Your task to perform on an android device: install app "Google Sheets" Image 0: 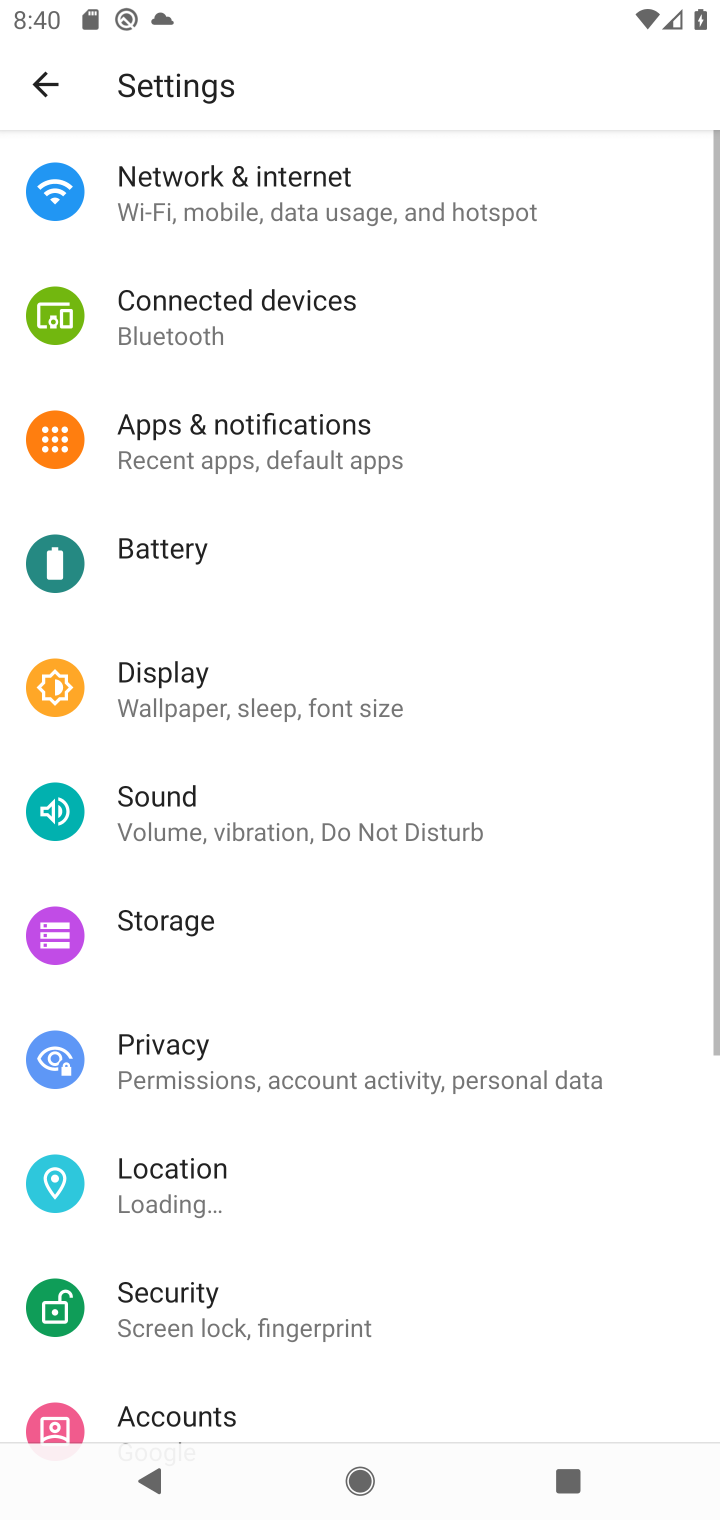
Step 0: press home button
Your task to perform on an android device: install app "Google Sheets" Image 1: 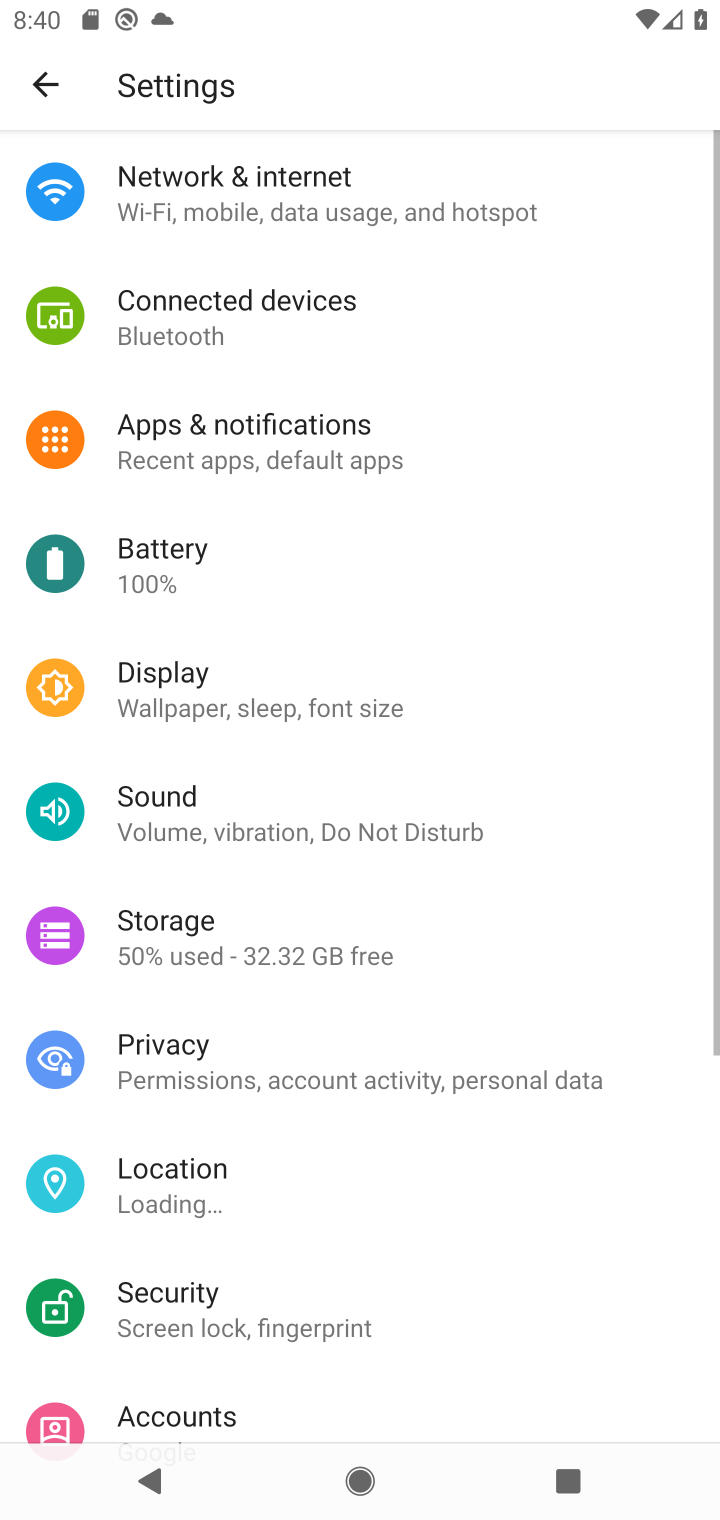
Step 1: drag from (310, 1058) to (310, 101)
Your task to perform on an android device: install app "Google Sheets" Image 2: 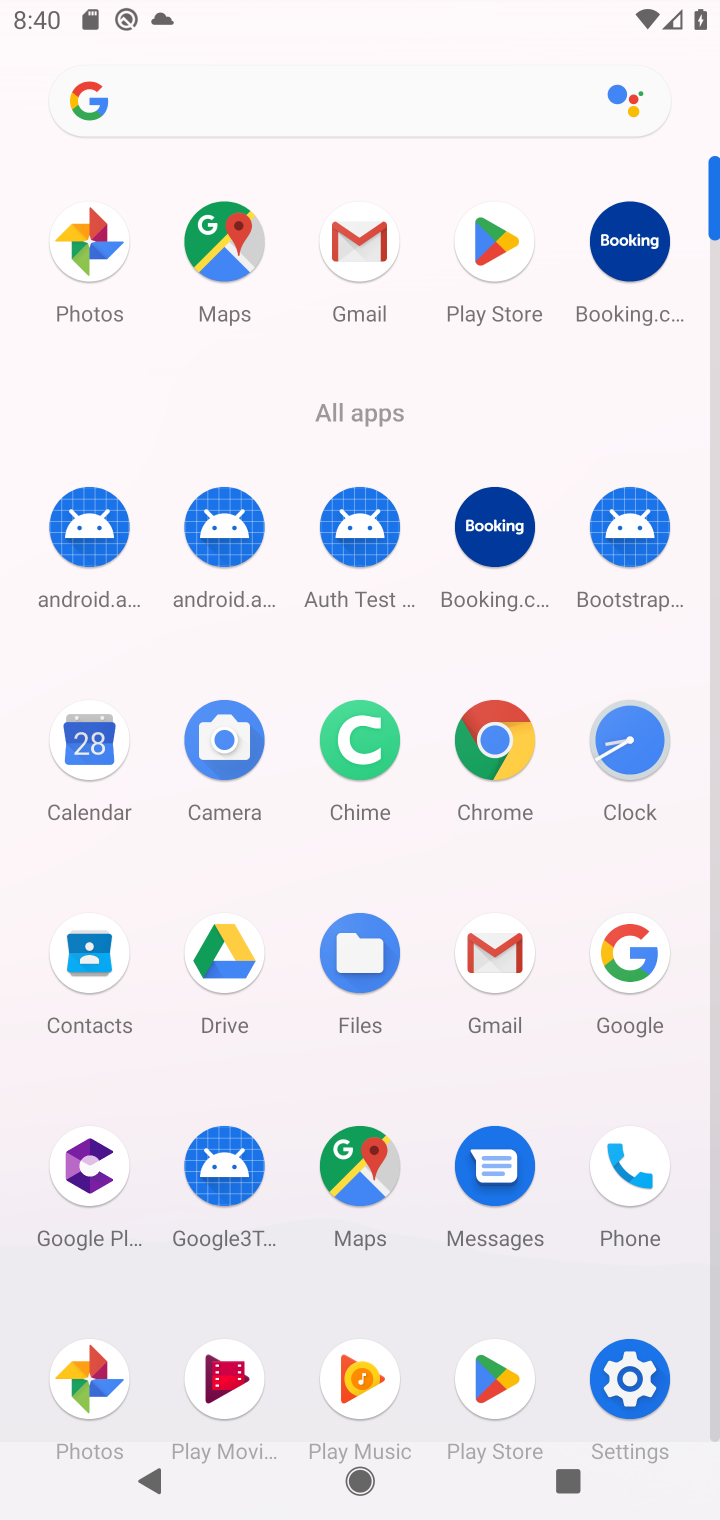
Step 2: drag from (483, 239) to (336, 1215)
Your task to perform on an android device: install app "Google Sheets" Image 3: 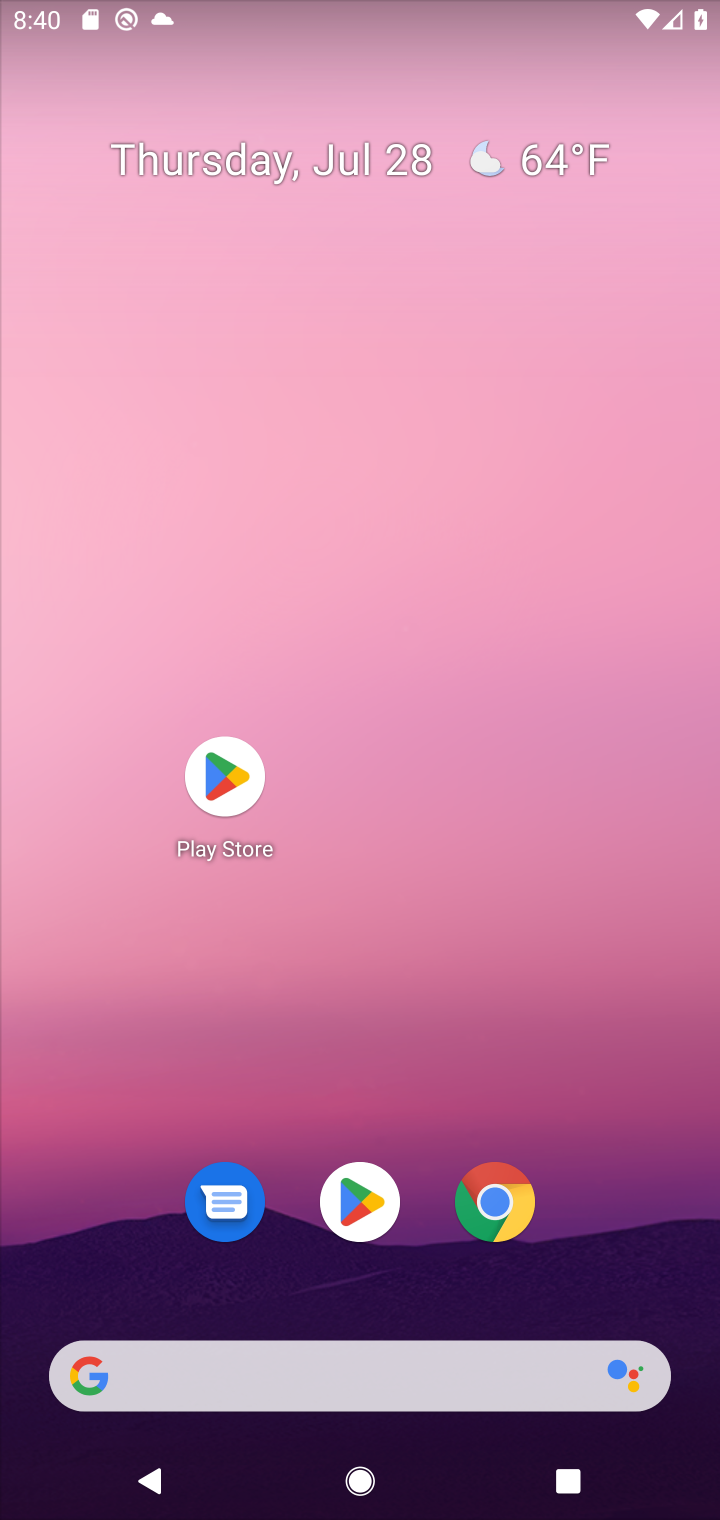
Step 3: click (354, 1202)
Your task to perform on an android device: install app "Google Sheets" Image 4: 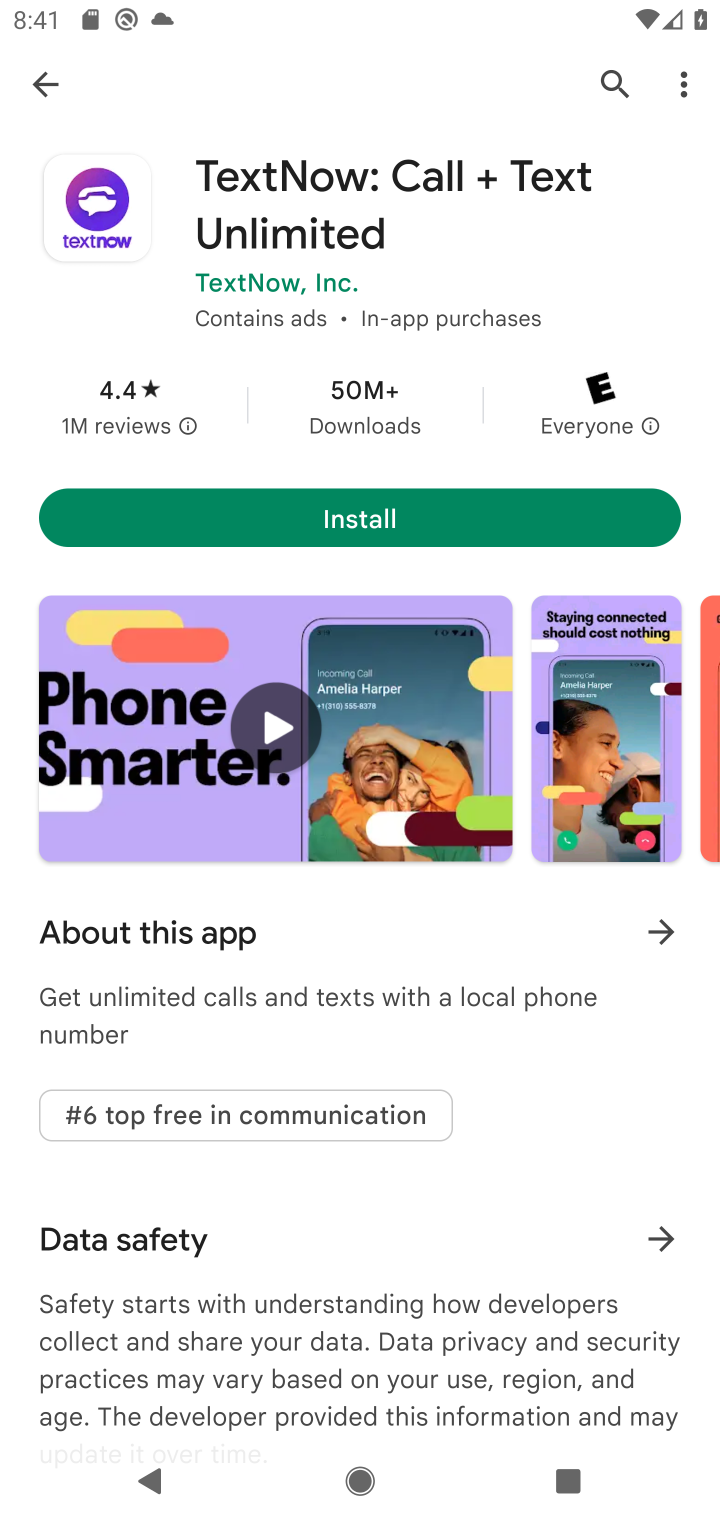
Step 4: click (49, 83)
Your task to perform on an android device: install app "Google Sheets" Image 5: 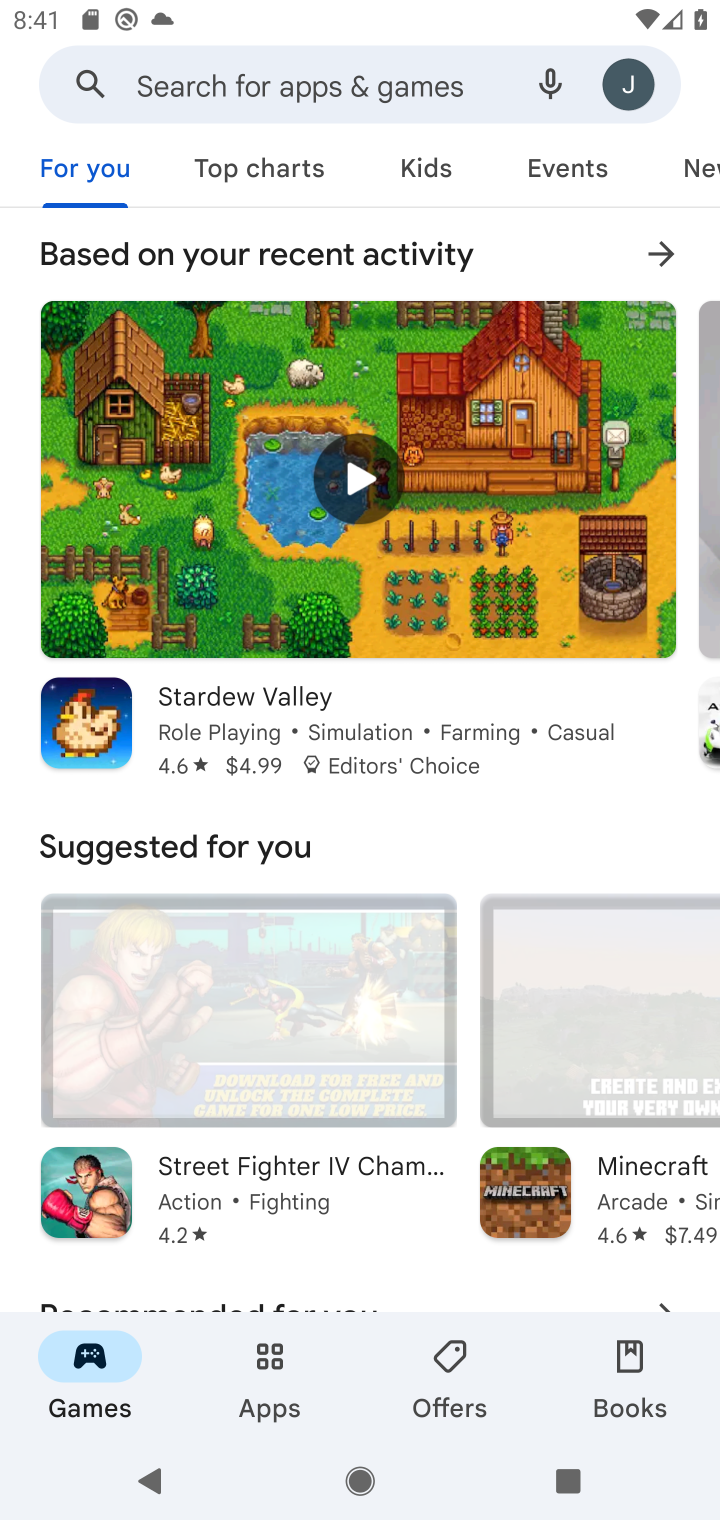
Step 5: click (386, 72)
Your task to perform on an android device: install app "Google Sheets" Image 6: 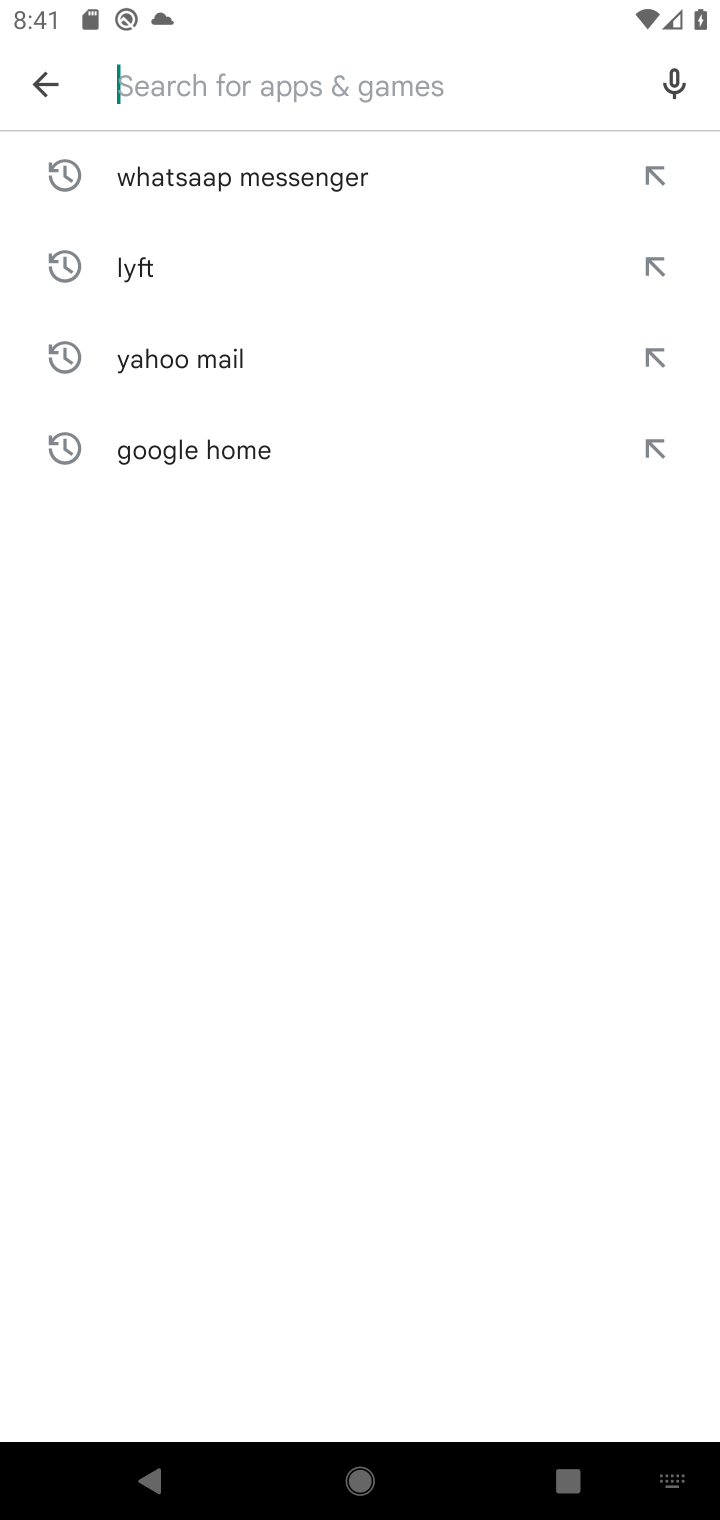
Step 6: type "google sheets"
Your task to perform on an android device: install app "Google Sheets" Image 7: 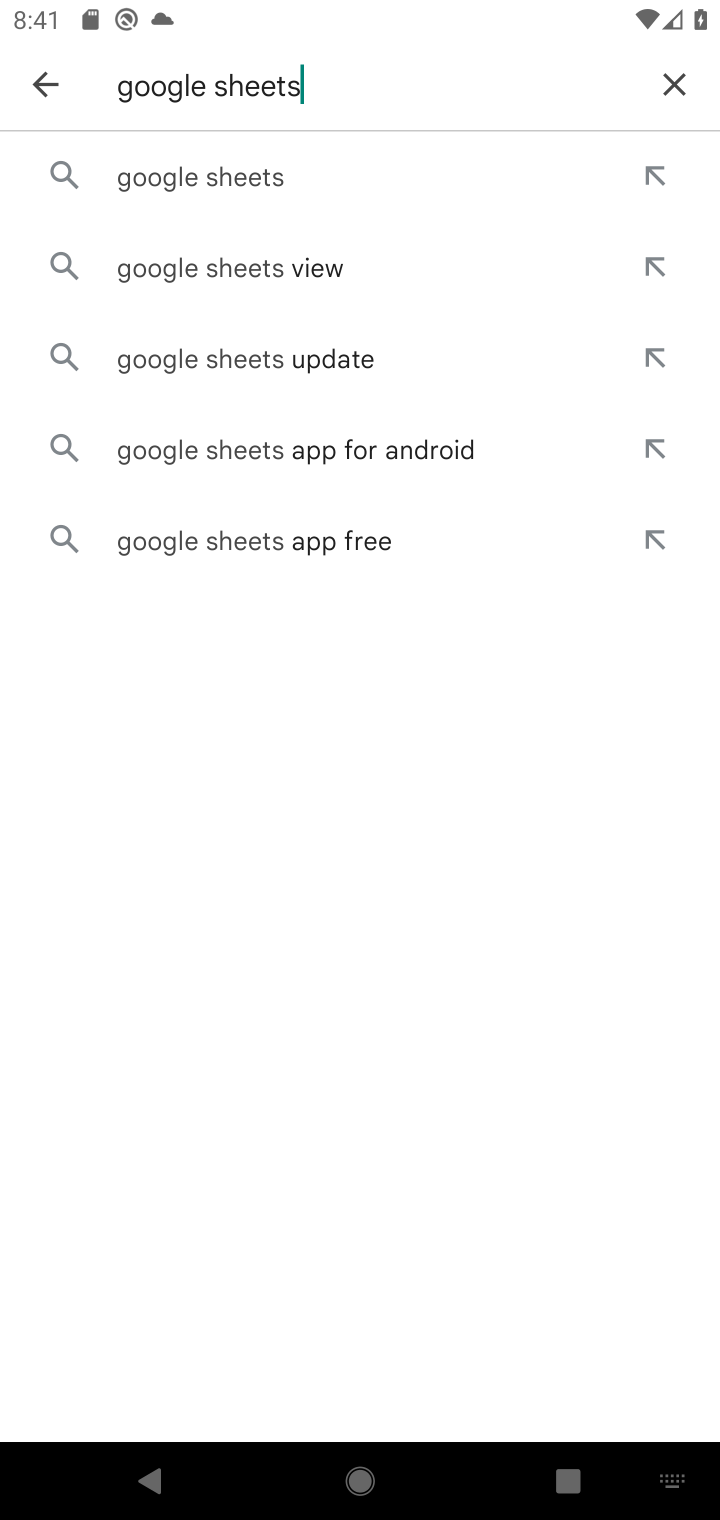
Step 7: click (185, 170)
Your task to perform on an android device: install app "Google Sheets" Image 8: 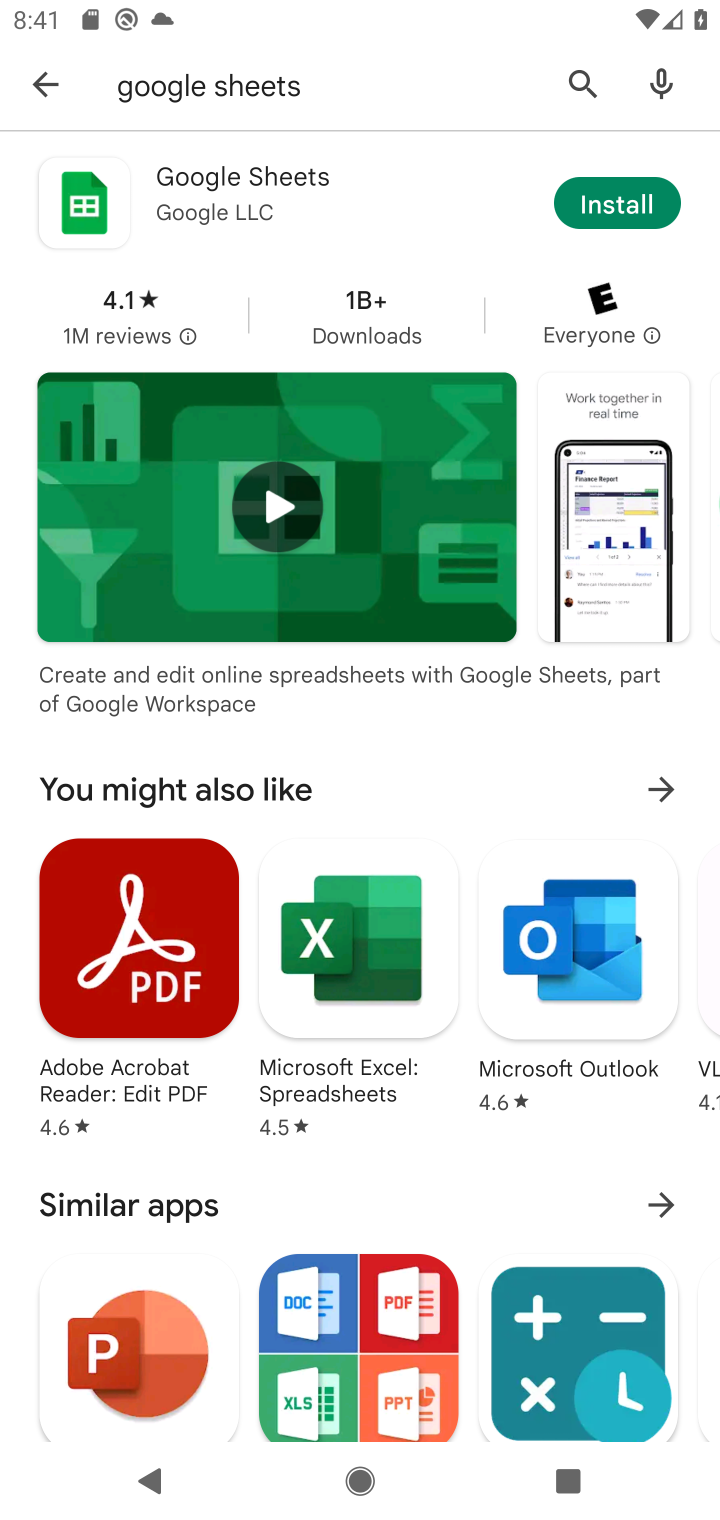
Step 8: click (586, 188)
Your task to perform on an android device: install app "Google Sheets" Image 9: 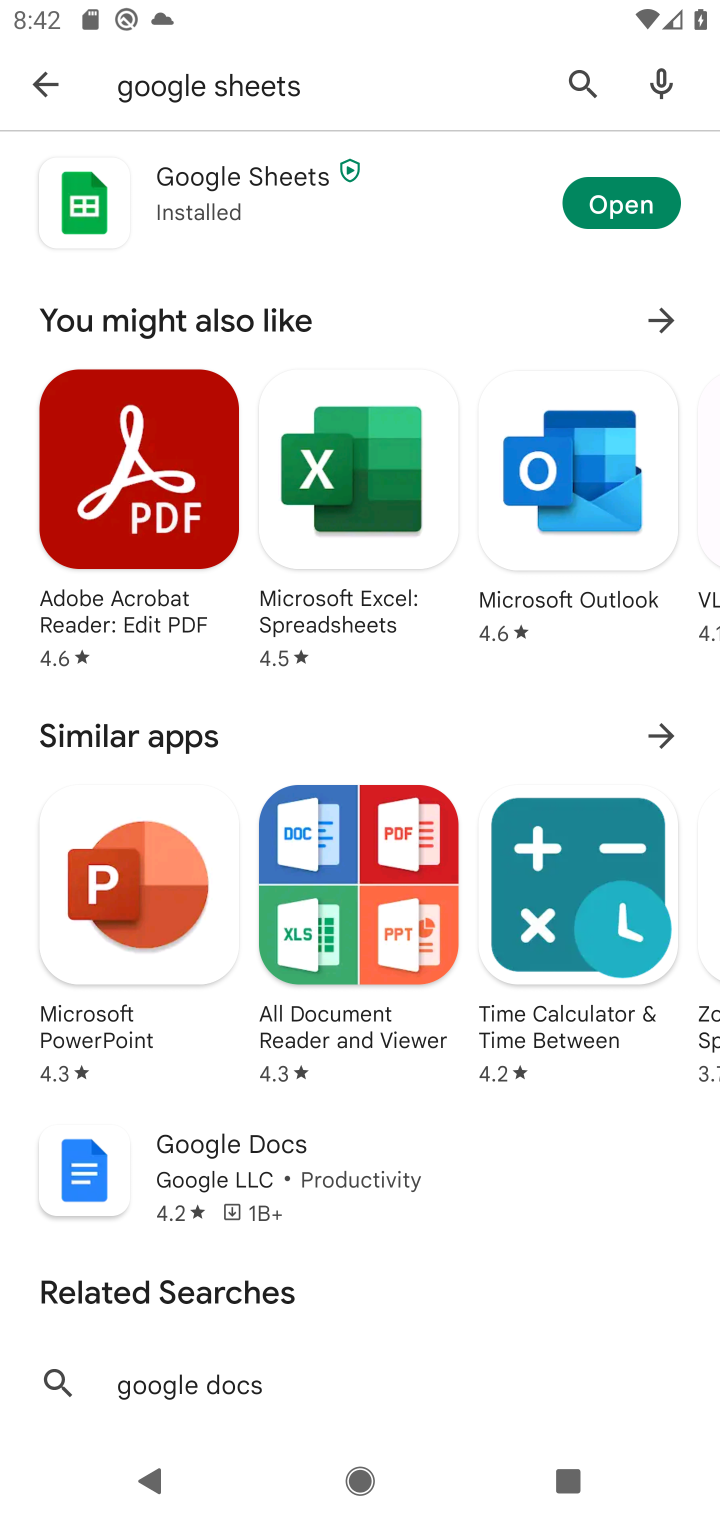
Step 9: click (623, 187)
Your task to perform on an android device: install app "Google Sheets" Image 10: 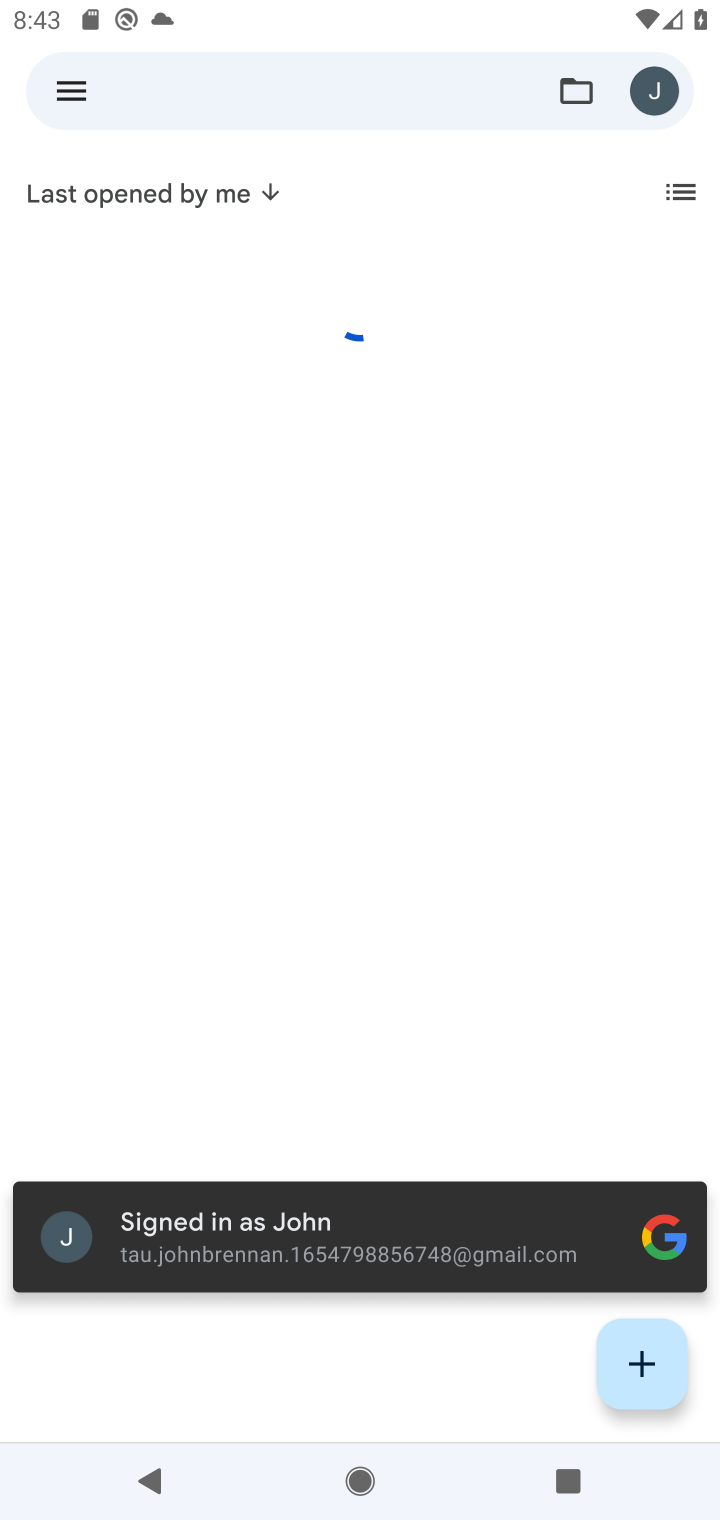
Step 10: task complete